Your task to perform on an android device: turn off notifications in google photos Image 0: 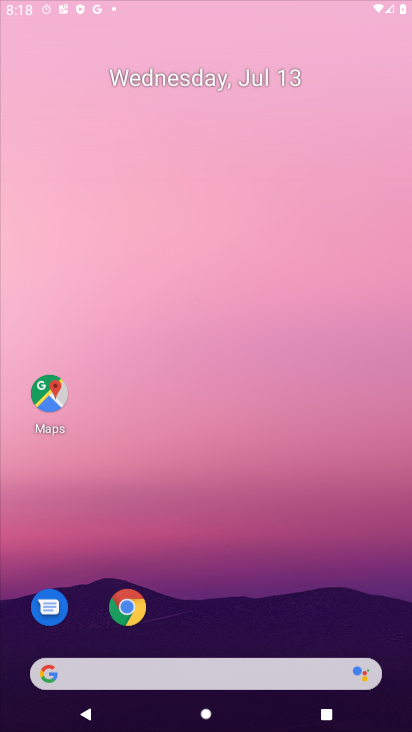
Step 0: drag from (204, 181) to (298, 124)
Your task to perform on an android device: turn off notifications in google photos Image 1: 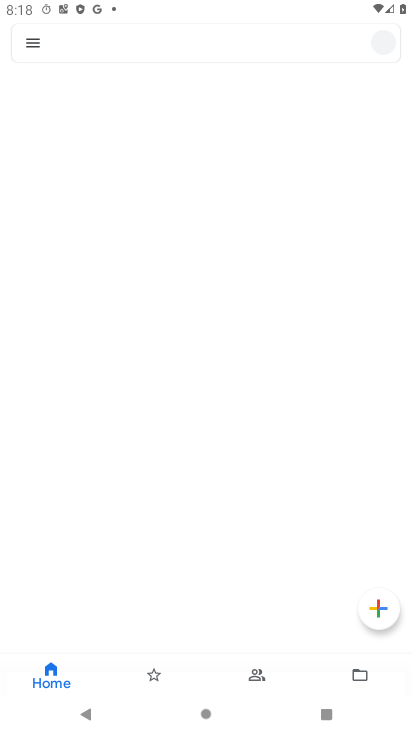
Step 1: drag from (260, 442) to (249, 167)
Your task to perform on an android device: turn off notifications in google photos Image 2: 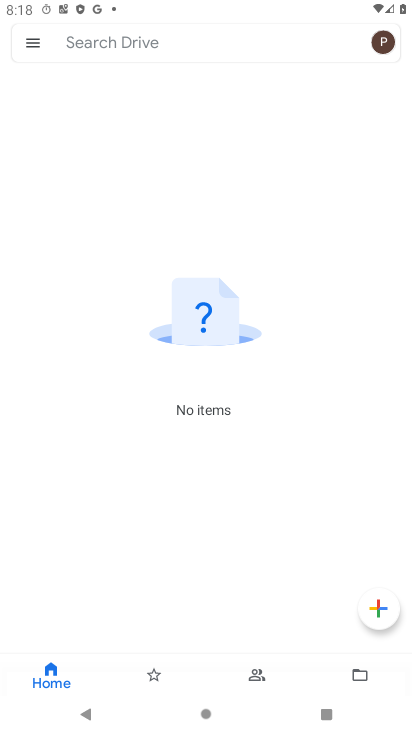
Step 2: press back button
Your task to perform on an android device: turn off notifications in google photos Image 3: 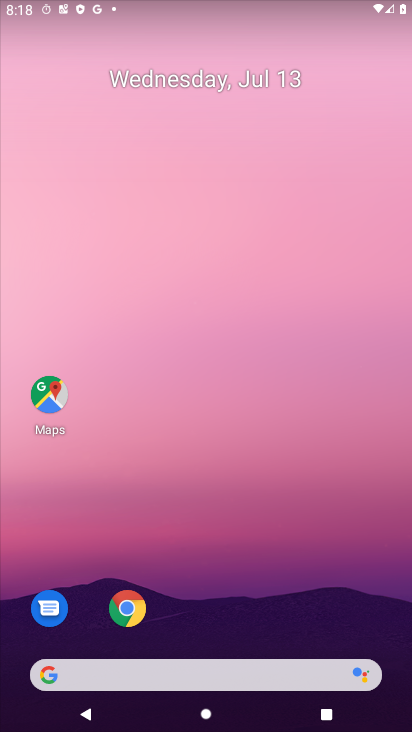
Step 3: drag from (277, 658) to (237, 230)
Your task to perform on an android device: turn off notifications in google photos Image 4: 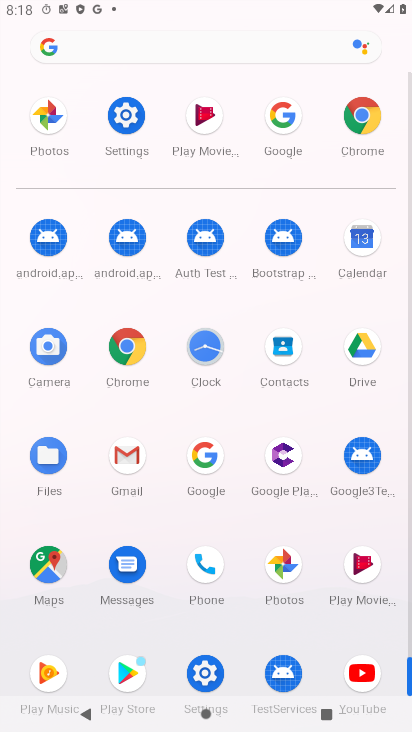
Step 4: click (284, 554)
Your task to perform on an android device: turn off notifications in google photos Image 5: 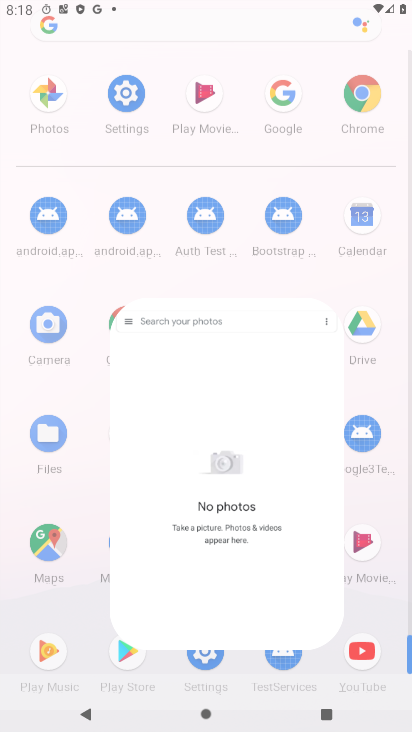
Step 5: click (284, 554)
Your task to perform on an android device: turn off notifications in google photos Image 6: 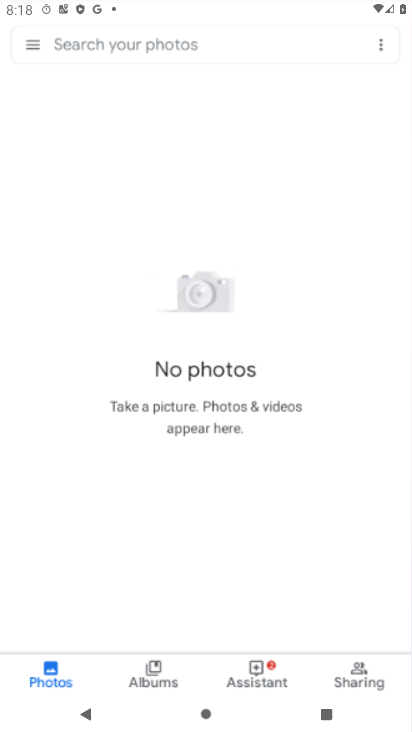
Step 6: click (284, 554)
Your task to perform on an android device: turn off notifications in google photos Image 7: 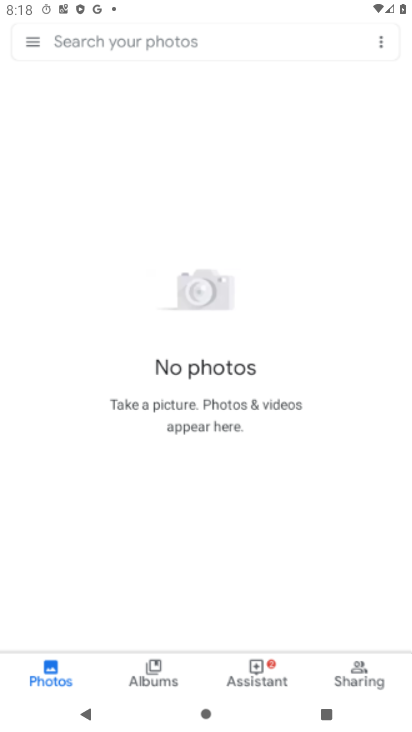
Step 7: click (284, 554)
Your task to perform on an android device: turn off notifications in google photos Image 8: 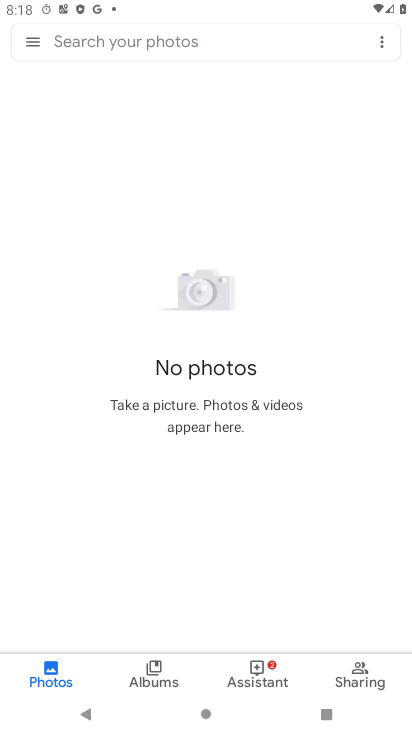
Step 8: drag from (31, 45) to (55, 240)
Your task to perform on an android device: turn off notifications in google photos Image 9: 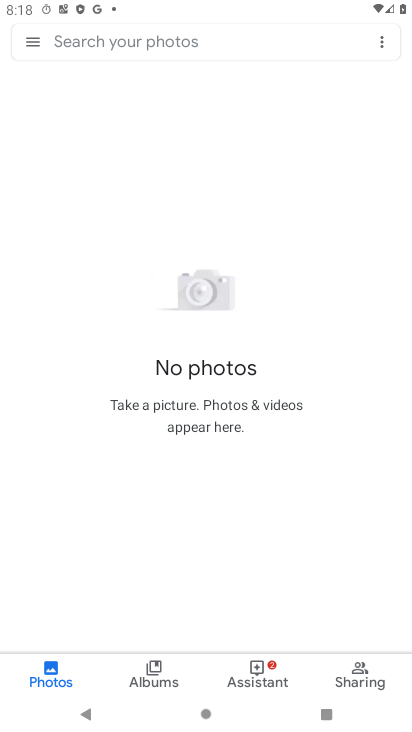
Step 9: drag from (35, 39) to (51, 111)
Your task to perform on an android device: turn off notifications in google photos Image 10: 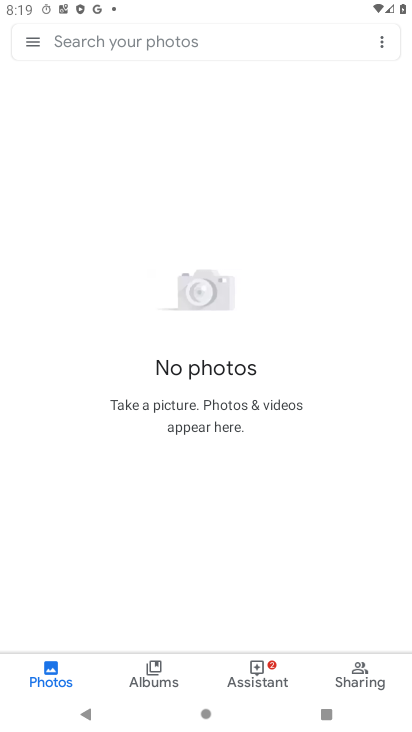
Step 10: click (32, 39)
Your task to perform on an android device: turn off notifications in google photos Image 11: 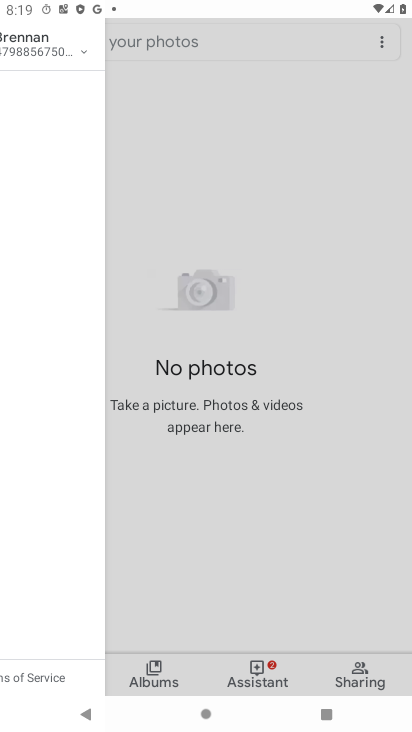
Step 11: drag from (33, 37) to (66, 237)
Your task to perform on an android device: turn off notifications in google photos Image 12: 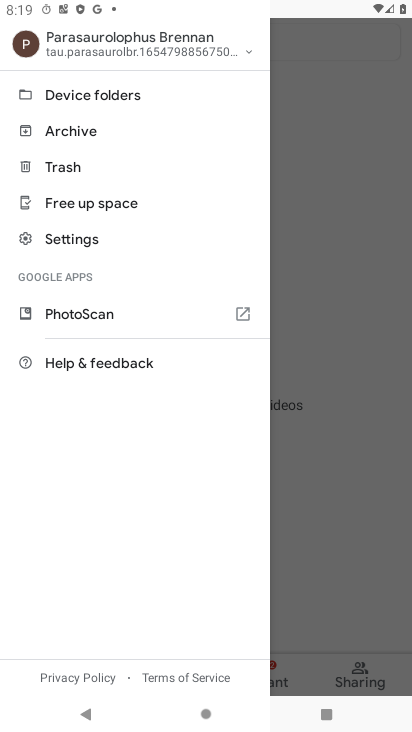
Step 12: click (66, 237)
Your task to perform on an android device: turn off notifications in google photos Image 13: 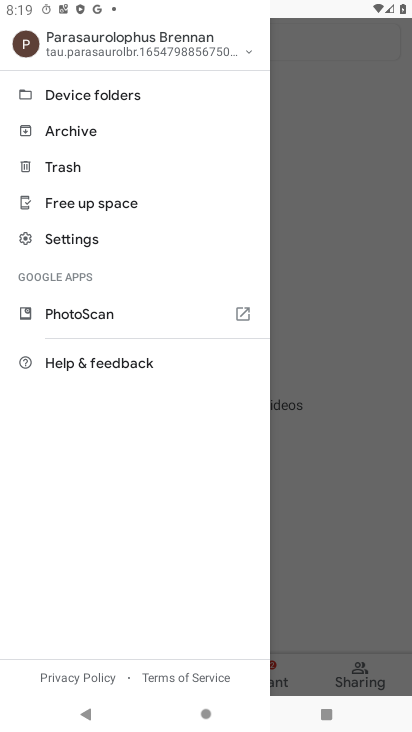
Step 13: click (65, 238)
Your task to perform on an android device: turn off notifications in google photos Image 14: 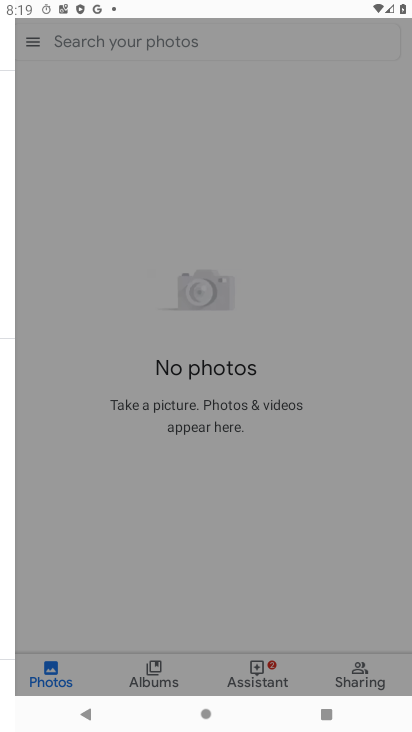
Step 14: click (65, 238)
Your task to perform on an android device: turn off notifications in google photos Image 15: 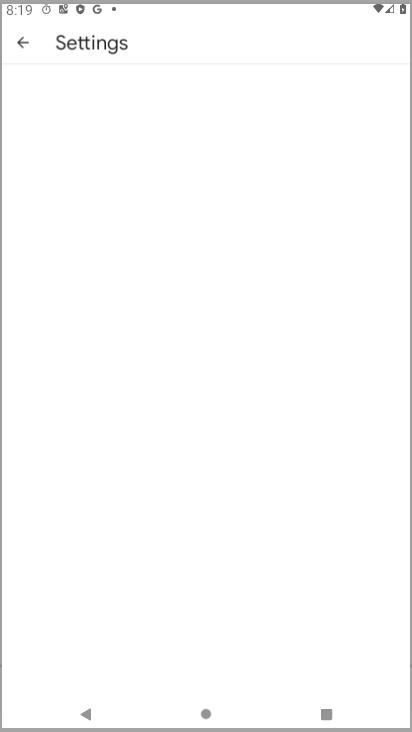
Step 15: click (65, 238)
Your task to perform on an android device: turn off notifications in google photos Image 16: 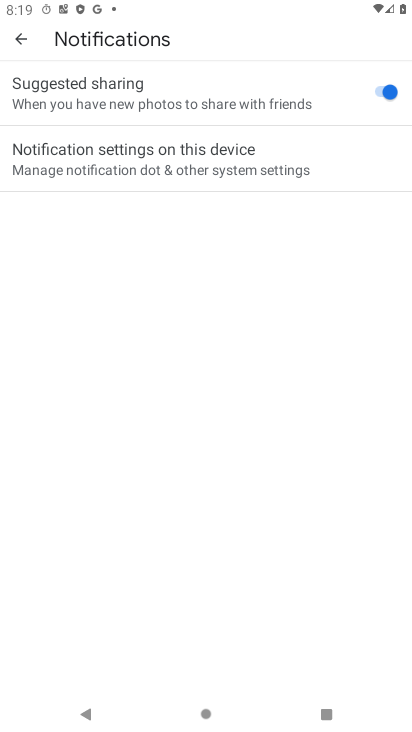
Step 16: click (13, 33)
Your task to perform on an android device: turn off notifications in google photos Image 17: 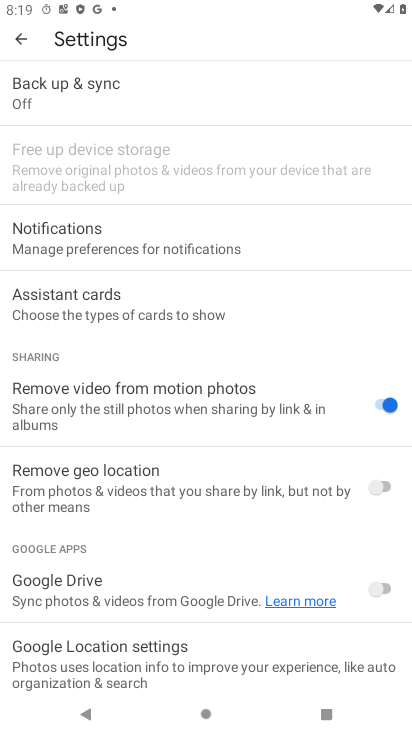
Step 17: click (78, 244)
Your task to perform on an android device: turn off notifications in google photos Image 18: 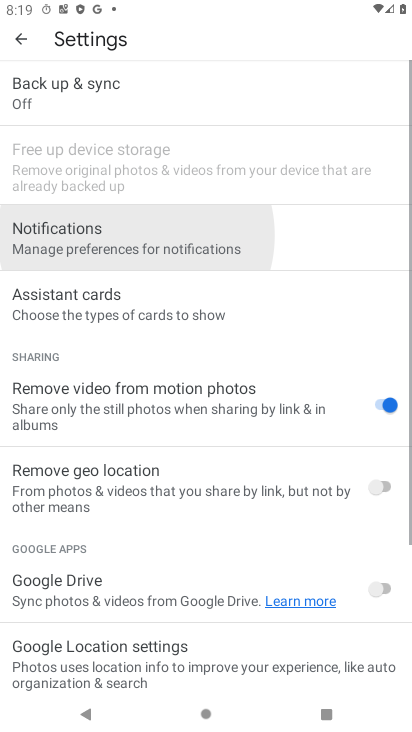
Step 18: click (78, 244)
Your task to perform on an android device: turn off notifications in google photos Image 19: 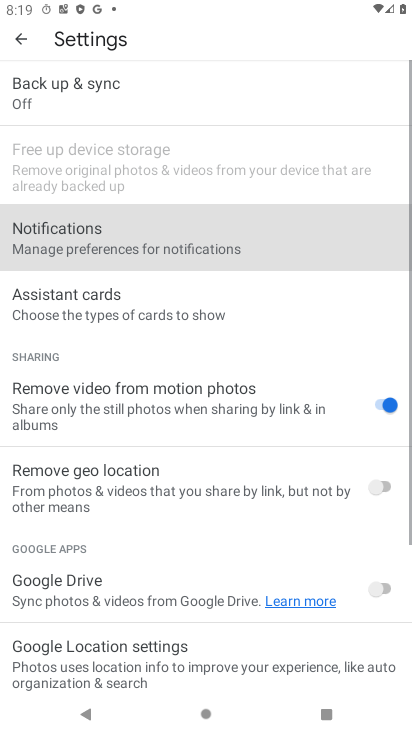
Step 19: click (78, 244)
Your task to perform on an android device: turn off notifications in google photos Image 20: 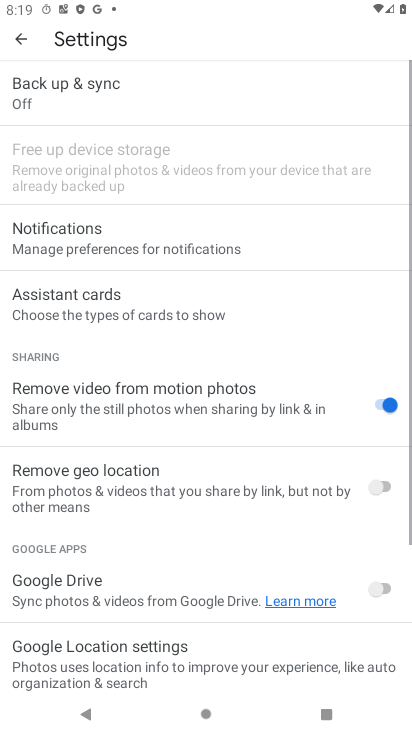
Step 20: click (78, 244)
Your task to perform on an android device: turn off notifications in google photos Image 21: 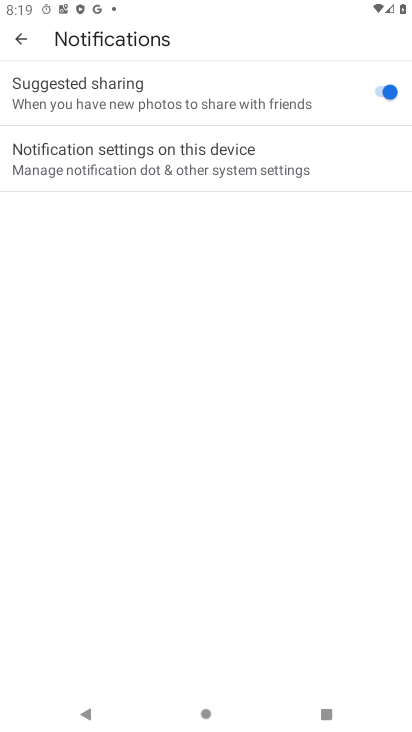
Step 21: click (392, 88)
Your task to perform on an android device: turn off notifications in google photos Image 22: 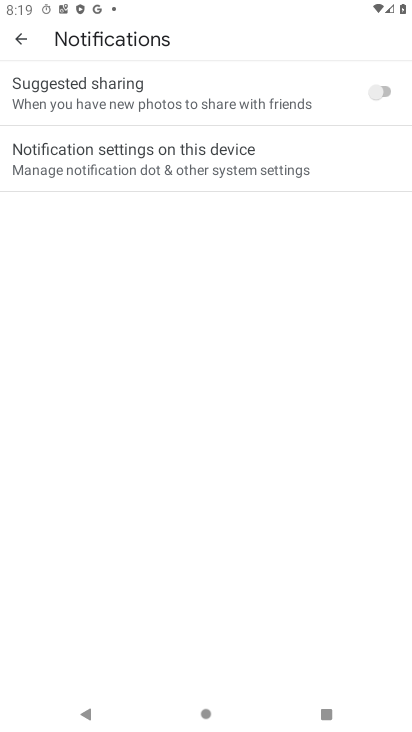
Step 22: task complete